Your task to perform on an android device: Open Google Image 0: 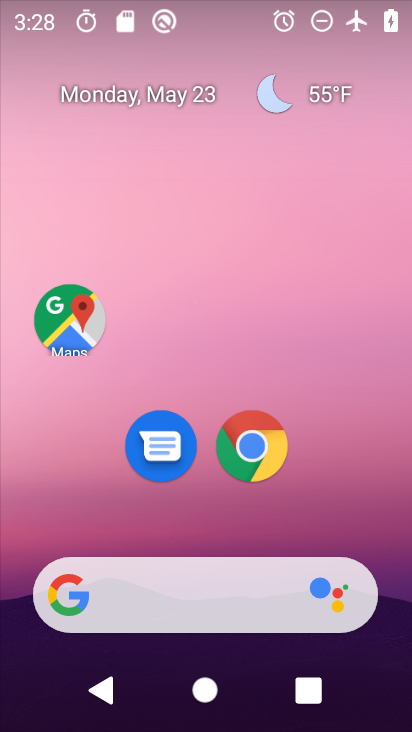
Step 0: drag from (201, 537) to (187, 161)
Your task to perform on an android device: Open Google Image 1: 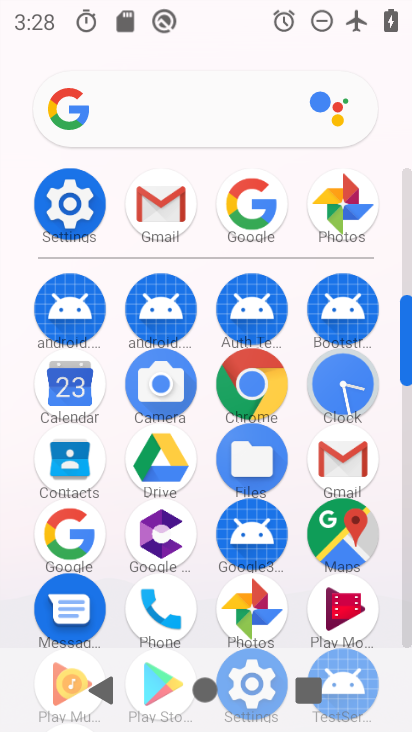
Step 1: click (89, 533)
Your task to perform on an android device: Open Google Image 2: 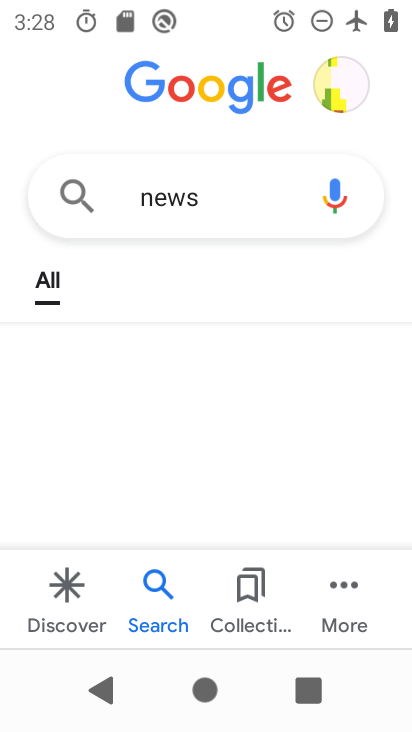
Step 2: task complete